Your task to perform on an android device: Open ESPN.com Image 0: 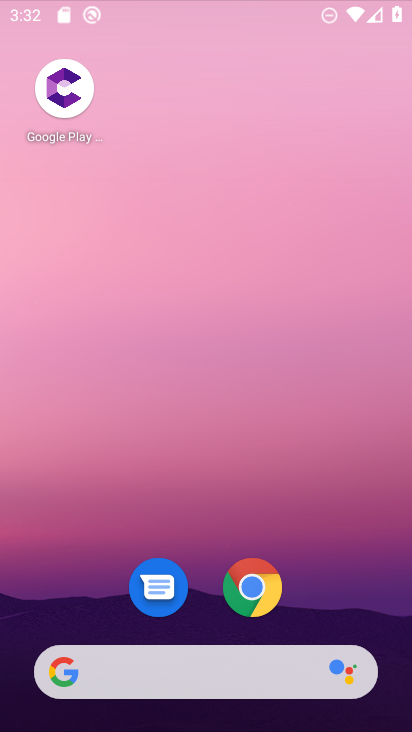
Step 0: drag from (347, 571) to (342, 66)
Your task to perform on an android device: Open ESPN.com Image 1: 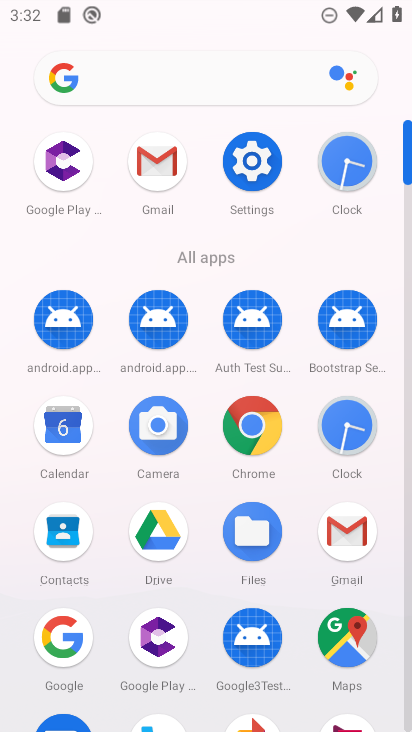
Step 1: click (260, 437)
Your task to perform on an android device: Open ESPN.com Image 2: 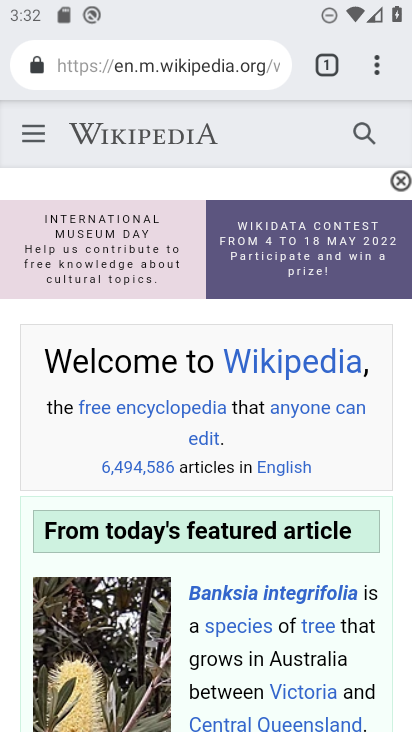
Step 2: click (271, 75)
Your task to perform on an android device: Open ESPN.com Image 3: 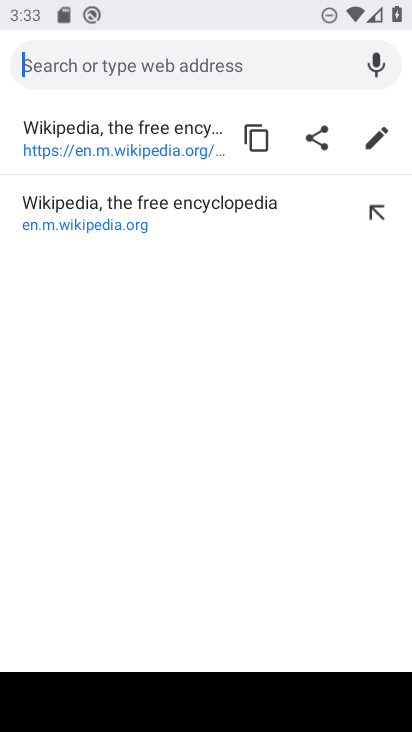
Step 3: type "espn.com"
Your task to perform on an android device: Open ESPN.com Image 4: 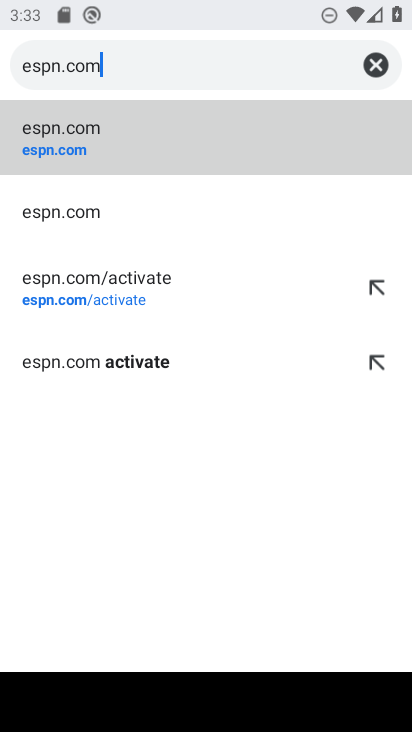
Step 4: click (103, 240)
Your task to perform on an android device: Open ESPN.com Image 5: 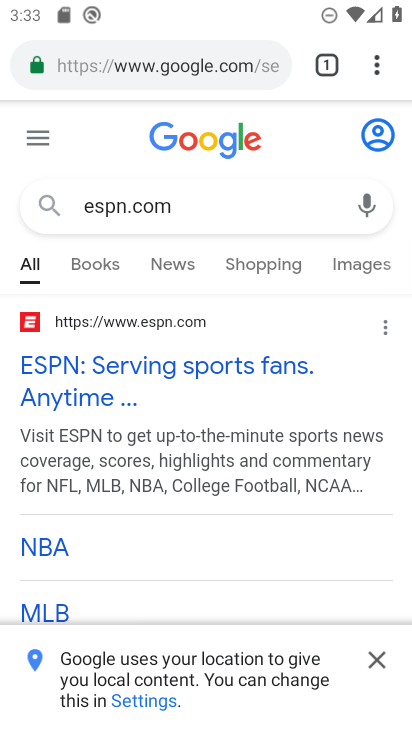
Step 5: click (153, 360)
Your task to perform on an android device: Open ESPN.com Image 6: 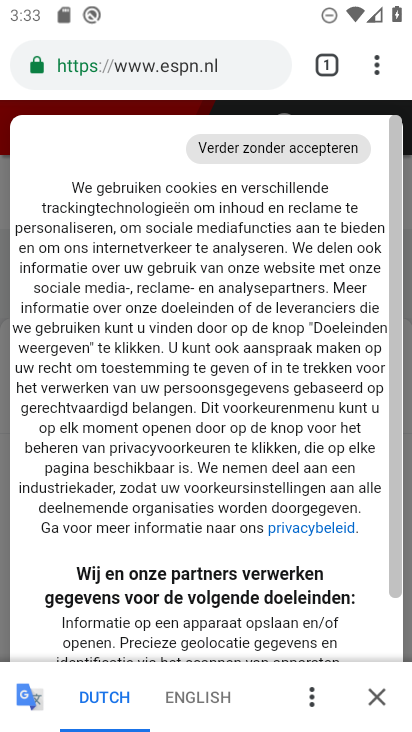
Step 6: task complete